Your task to perform on an android device: open wifi settings Image 0: 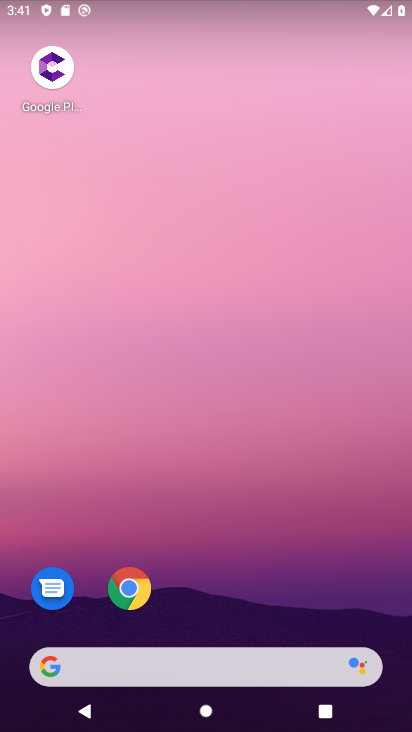
Step 0: drag from (71, 239) to (171, 696)
Your task to perform on an android device: open wifi settings Image 1: 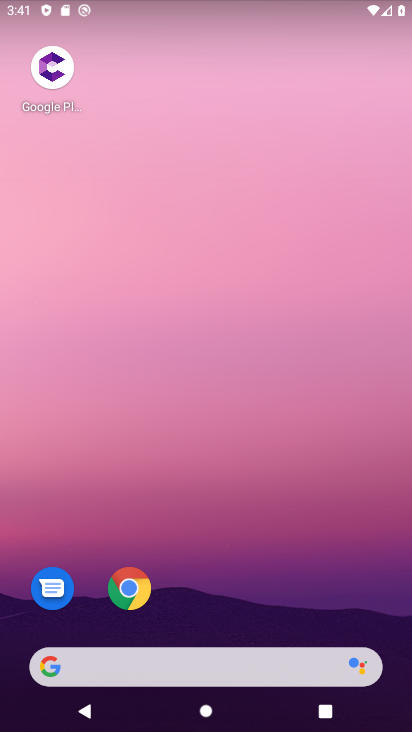
Step 1: drag from (136, 18) to (203, 590)
Your task to perform on an android device: open wifi settings Image 2: 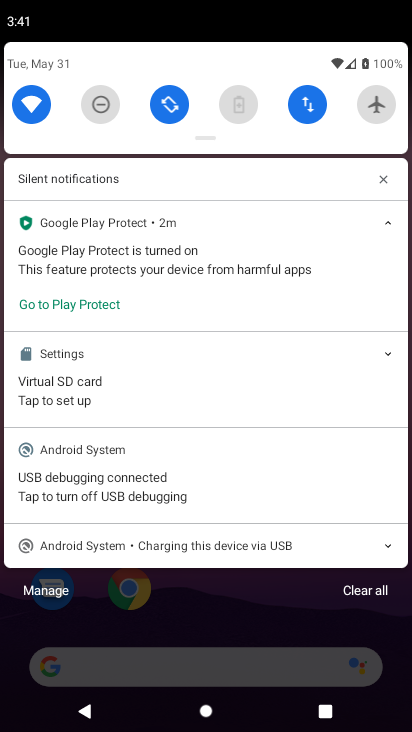
Step 2: click (36, 104)
Your task to perform on an android device: open wifi settings Image 3: 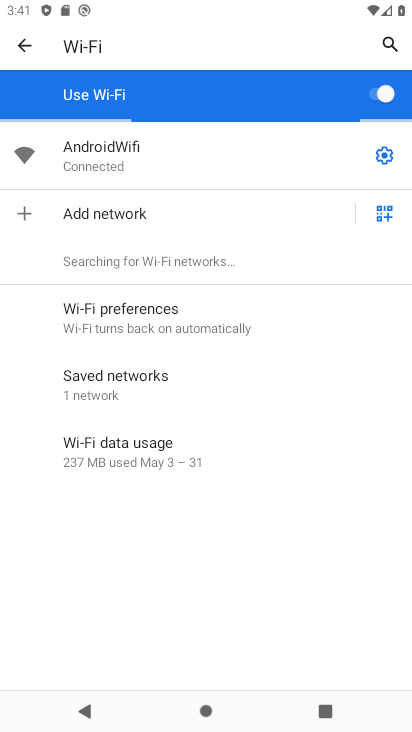
Step 3: task complete